Your task to perform on an android device: set an alarm Image 0: 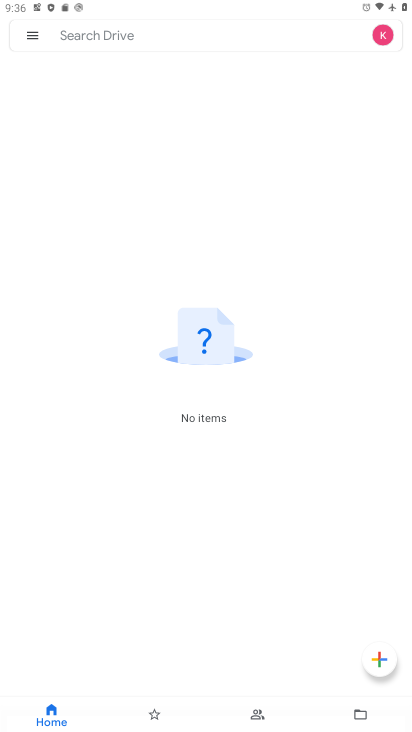
Step 0: press home button
Your task to perform on an android device: set an alarm Image 1: 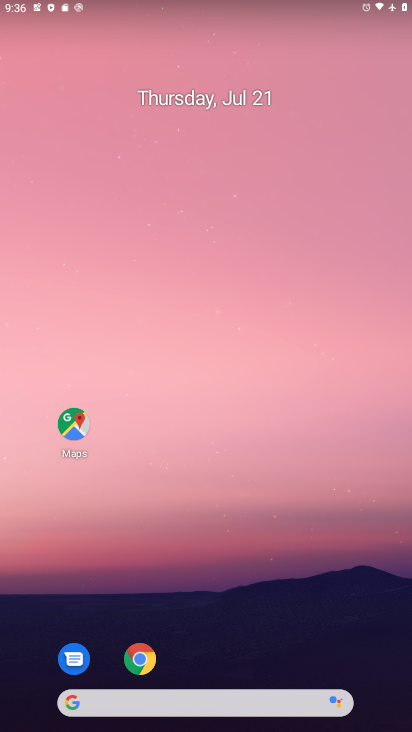
Step 1: drag from (196, 664) to (78, 85)
Your task to perform on an android device: set an alarm Image 2: 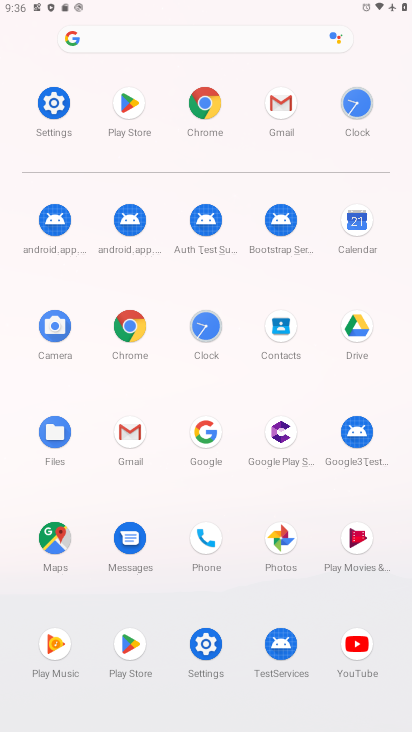
Step 2: click (202, 334)
Your task to perform on an android device: set an alarm Image 3: 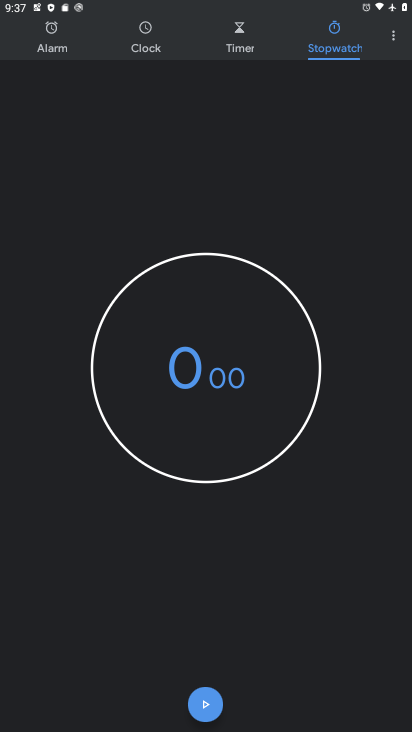
Step 3: click (59, 51)
Your task to perform on an android device: set an alarm Image 4: 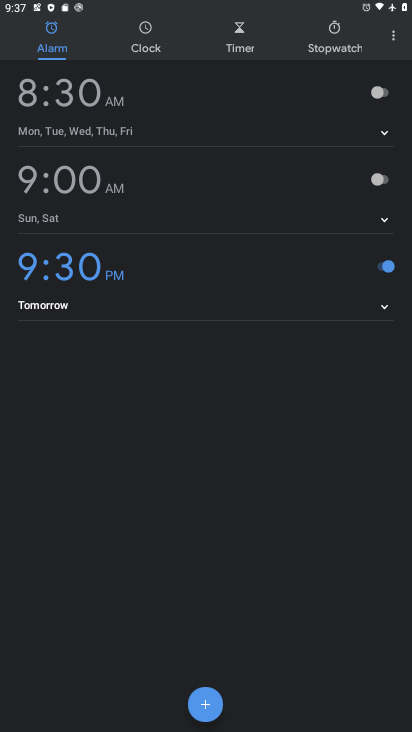
Step 4: click (206, 698)
Your task to perform on an android device: set an alarm Image 5: 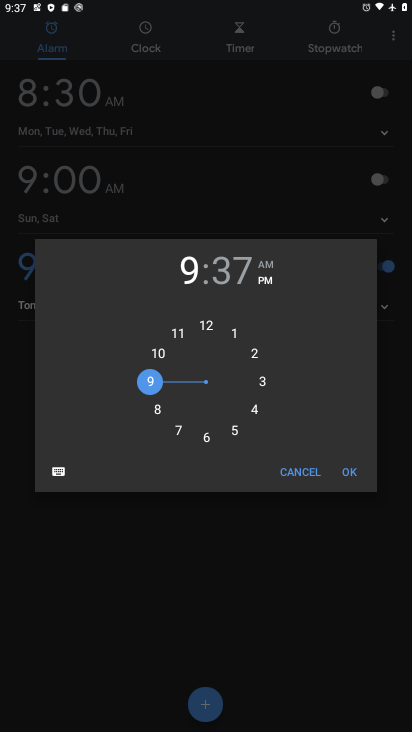
Step 5: click (358, 475)
Your task to perform on an android device: set an alarm Image 6: 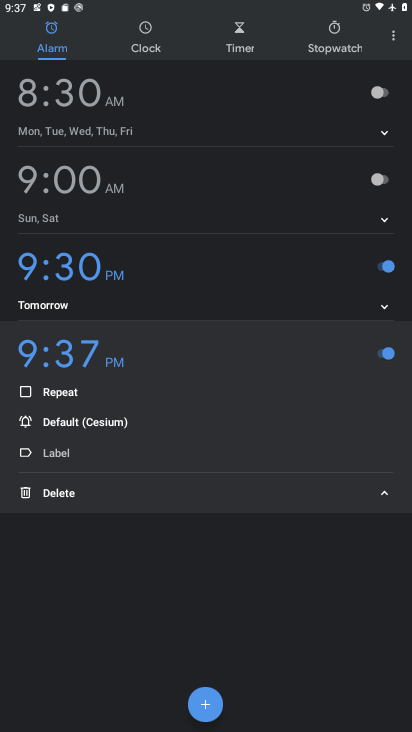
Step 6: task complete